Your task to perform on an android device: Go to settings Image 0: 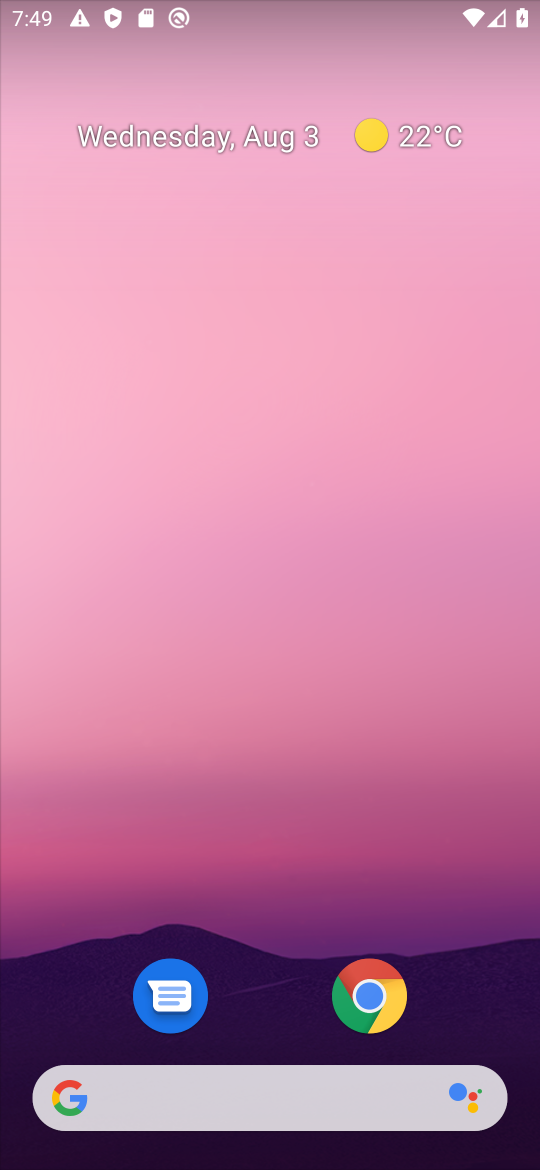
Step 0: drag from (287, 70) to (316, 23)
Your task to perform on an android device: Go to settings Image 1: 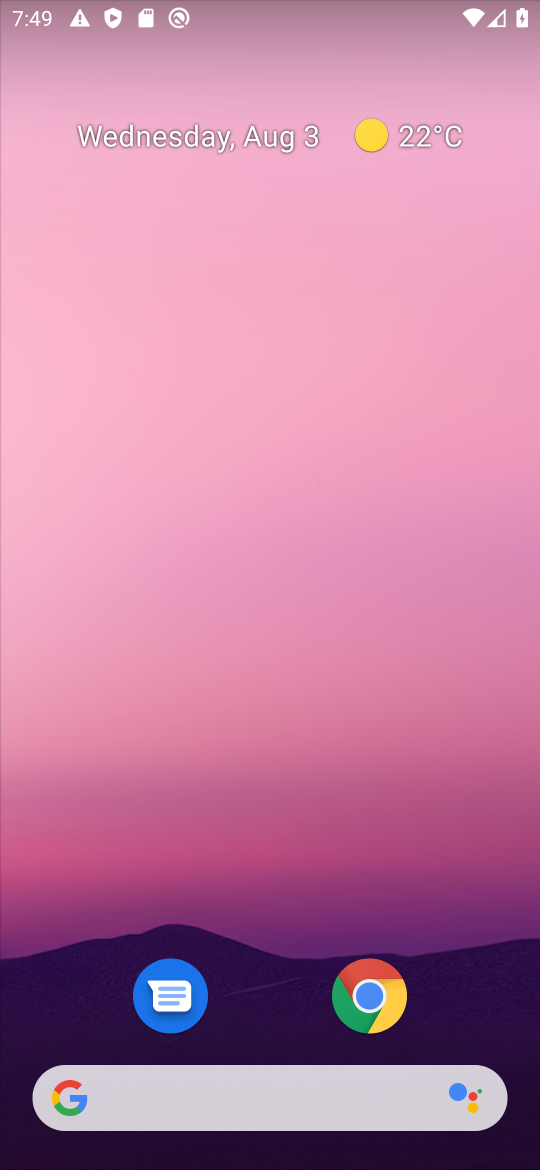
Step 1: drag from (282, 1024) to (294, 1)
Your task to perform on an android device: Go to settings Image 2: 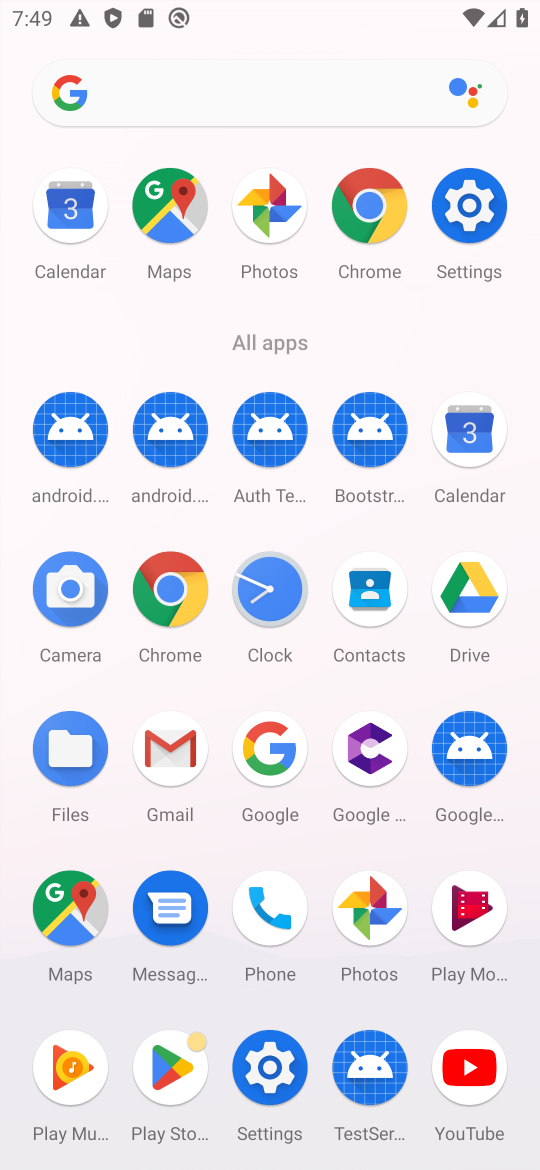
Step 2: click (475, 234)
Your task to perform on an android device: Go to settings Image 3: 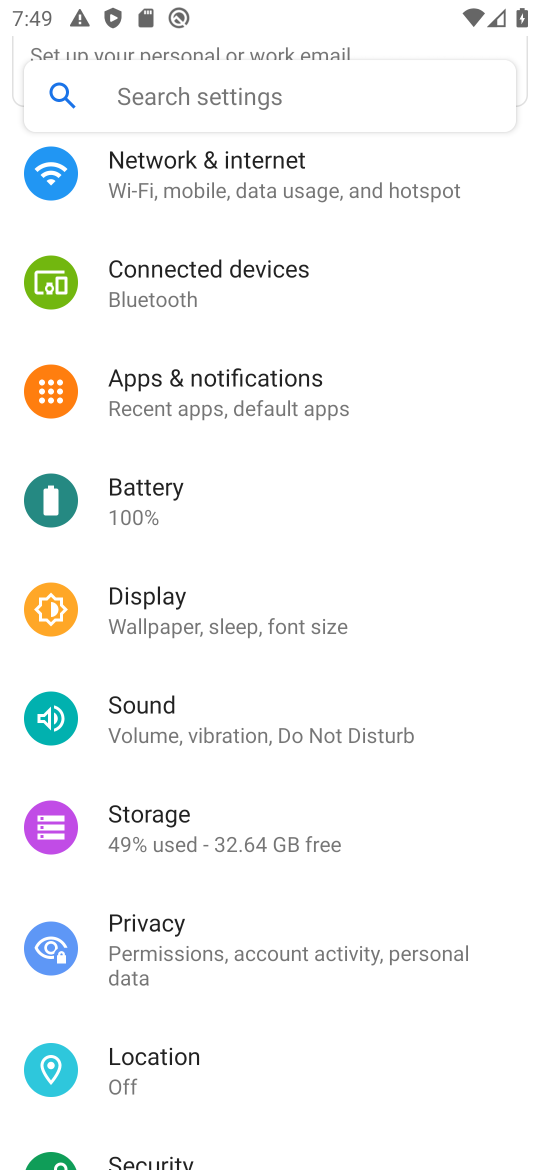
Step 3: task complete